Your task to perform on an android device: move an email to a new category in the gmail app Image 0: 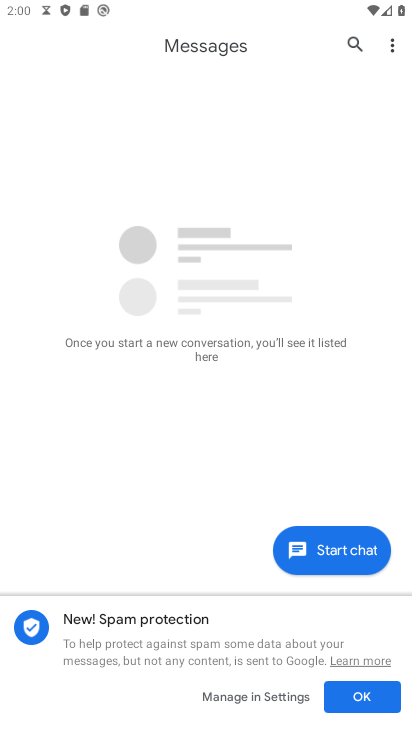
Step 0: press home button
Your task to perform on an android device: move an email to a new category in the gmail app Image 1: 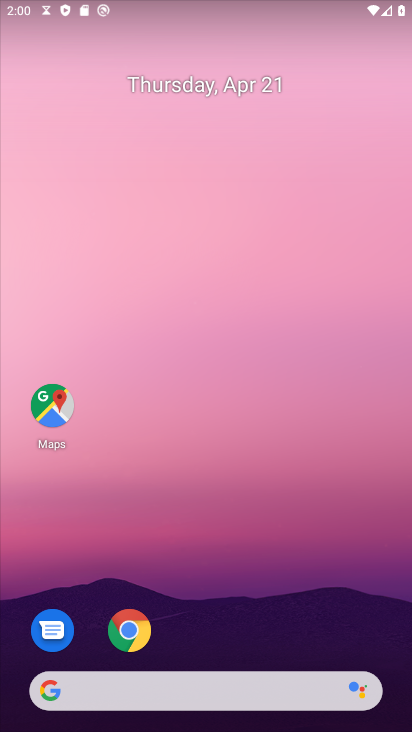
Step 1: drag from (350, 611) to (311, 2)
Your task to perform on an android device: move an email to a new category in the gmail app Image 2: 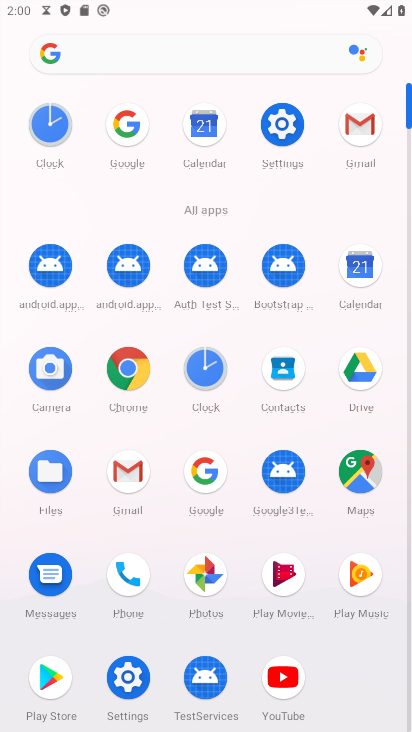
Step 2: click (349, 169)
Your task to perform on an android device: move an email to a new category in the gmail app Image 3: 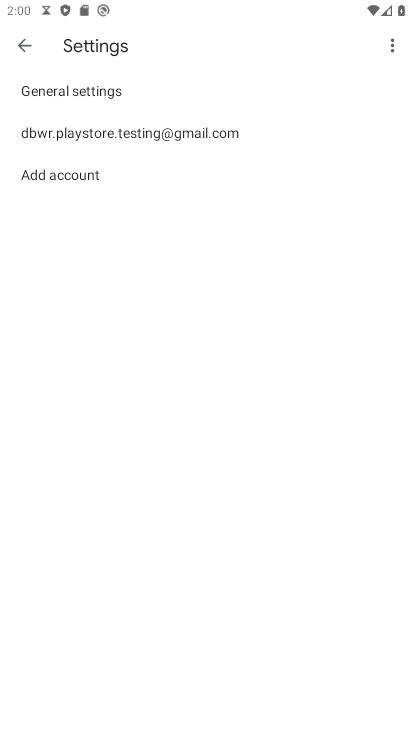
Step 3: click (22, 49)
Your task to perform on an android device: move an email to a new category in the gmail app Image 4: 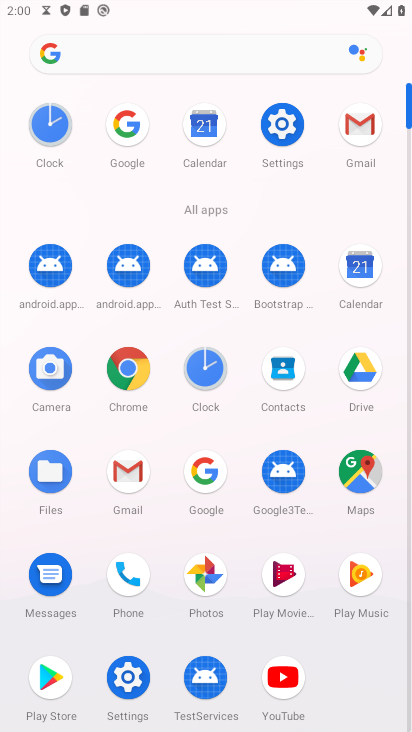
Step 4: click (356, 128)
Your task to perform on an android device: move an email to a new category in the gmail app Image 5: 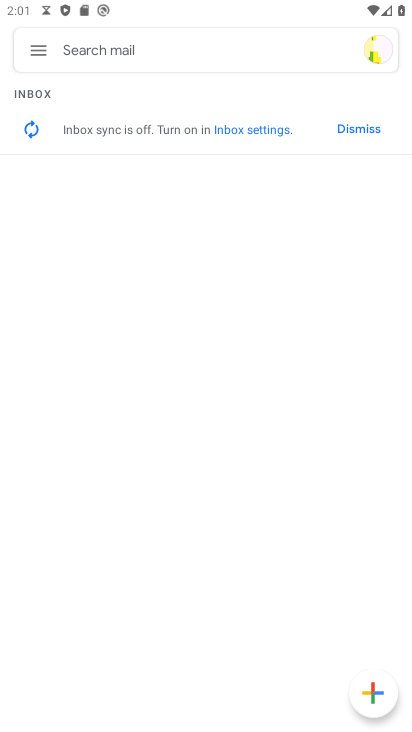
Step 5: click (34, 52)
Your task to perform on an android device: move an email to a new category in the gmail app Image 6: 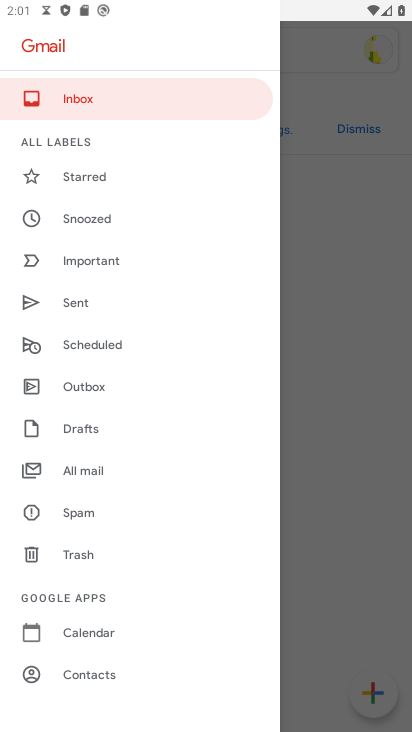
Step 6: click (86, 474)
Your task to perform on an android device: move an email to a new category in the gmail app Image 7: 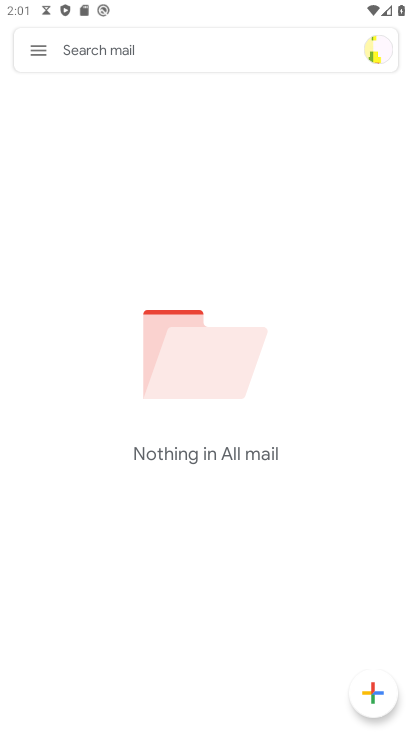
Step 7: task complete